Your task to perform on an android device: change notification settings in the gmail app Image 0: 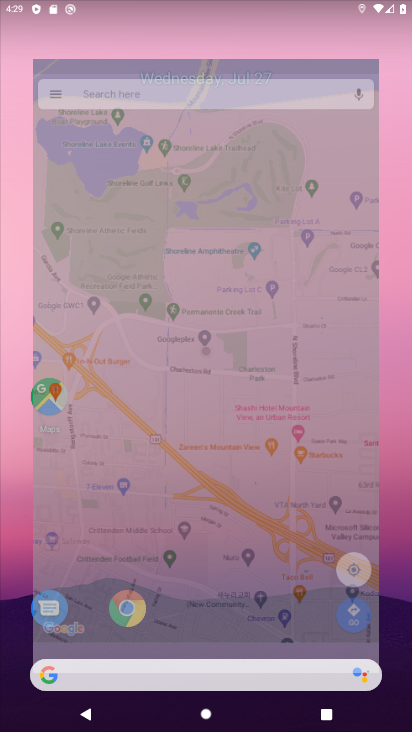
Step 0: press home button
Your task to perform on an android device: change notification settings in the gmail app Image 1: 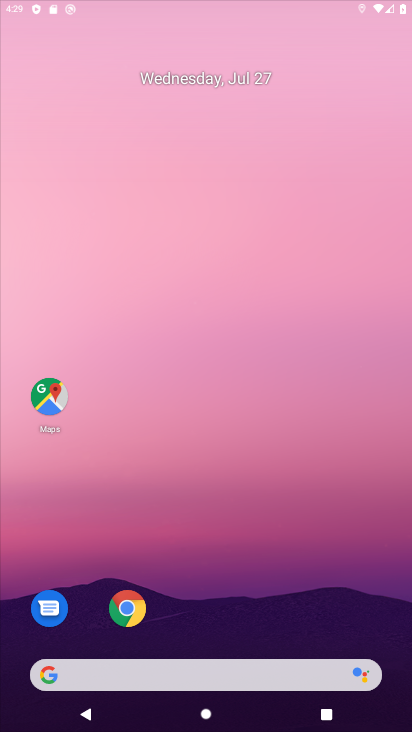
Step 1: press home button
Your task to perform on an android device: change notification settings in the gmail app Image 2: 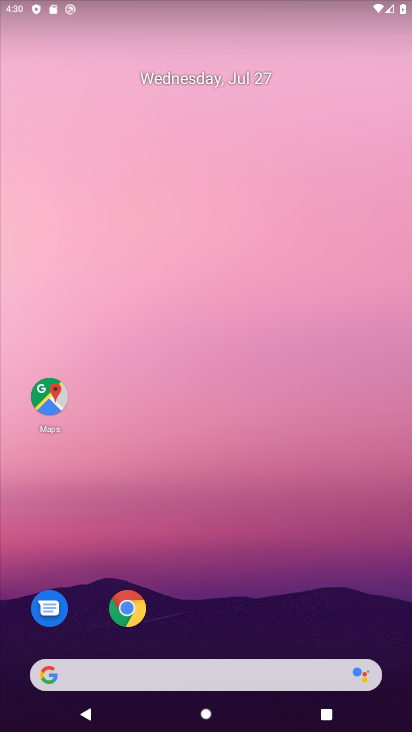
Step 2: drag from (245, 616) to (181, 74)
Your task to perform on an android device: change notification settings in the gmail app Image 3: 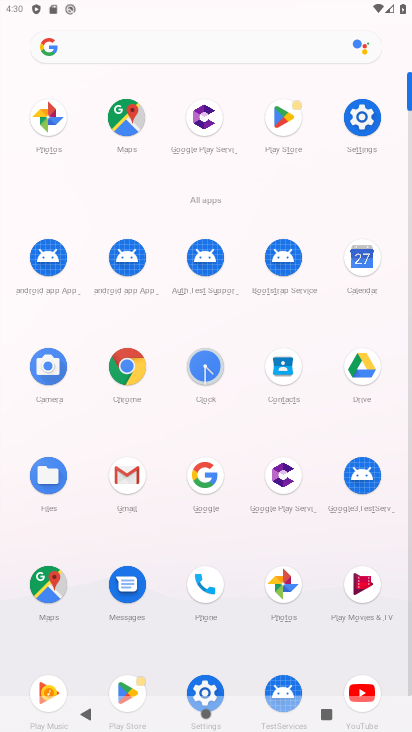
Step 3: click (126, 483)
Your task to perform on an android device: change notification settings in the gmail app Image 4: 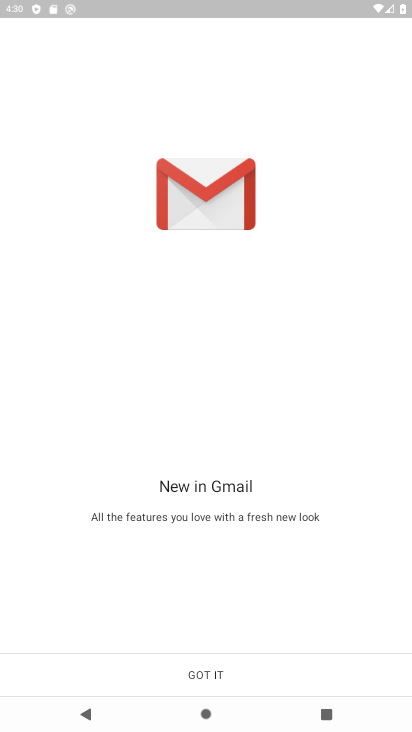
Step 4: click (214, 664)
Your task to perform on an android device: change notification settings in the gmail app Image 5: 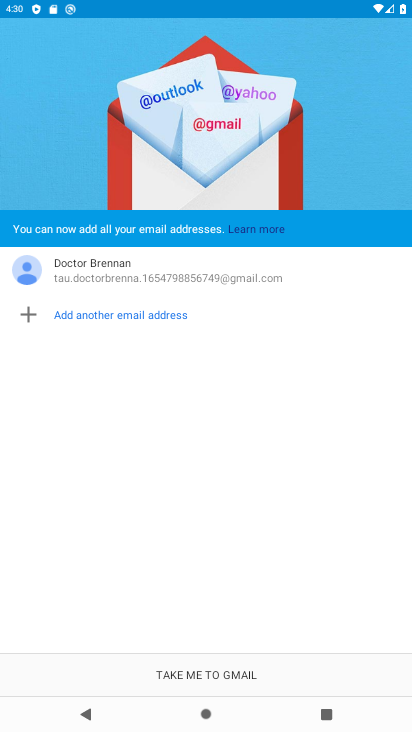
Step 5: click (209, 672)
Your task to perform on an android device: change notification settings in the gmail app Image 6: 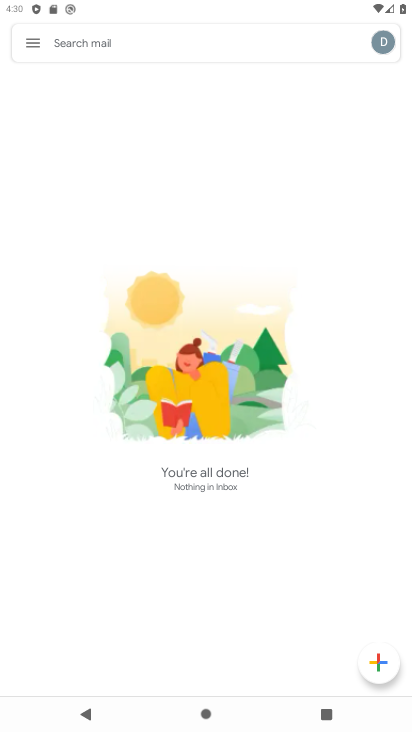
Step 6: click (37, 44)
Your task to perform on an android device: change notification settings in the gmail app Image 7: 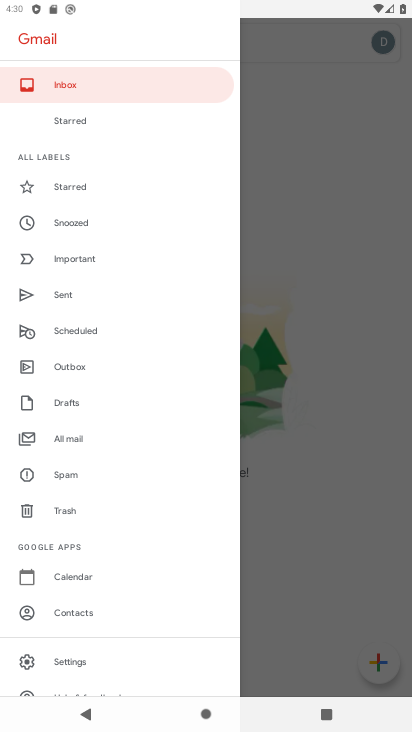
Step 7: click (70, 662)
Your task to perform on an android device: change notification settings in the gmail app Image 8: 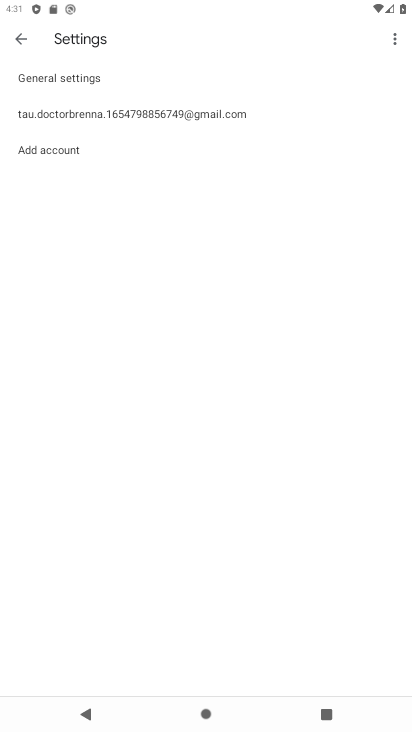
Step 8: click (95, 118)
Your task to perform on an android device: change notification settings in the gmail app Image 9: 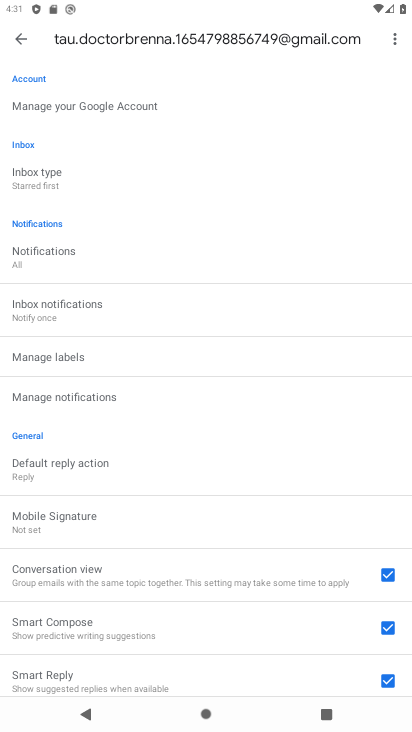
Step 9: click (65, 398)
Your task to perform on an android device: change notification settings in the gmail app Image 10: 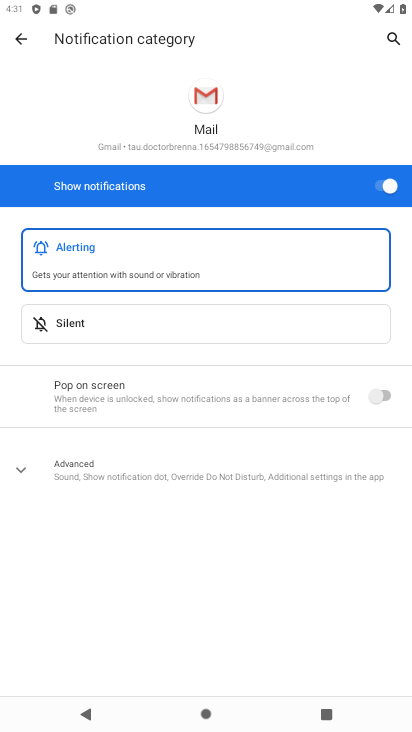
Step 10: click (386, 183)
Your task to perform on an android device: change notification settings in the gmail app Image 11: 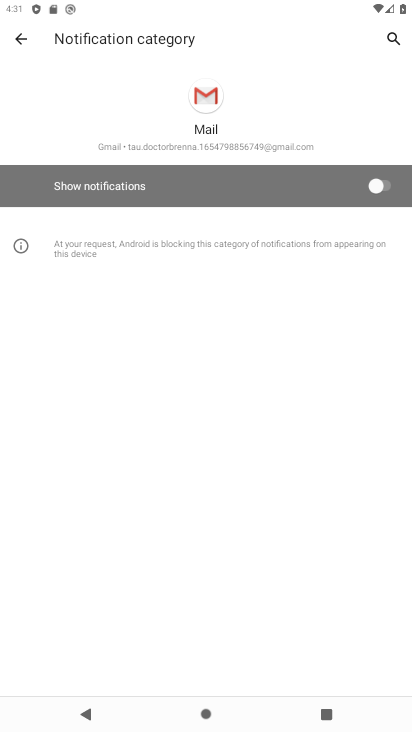
Step 11: task complete